Your task to perform on an android device: set the timer Image 0: 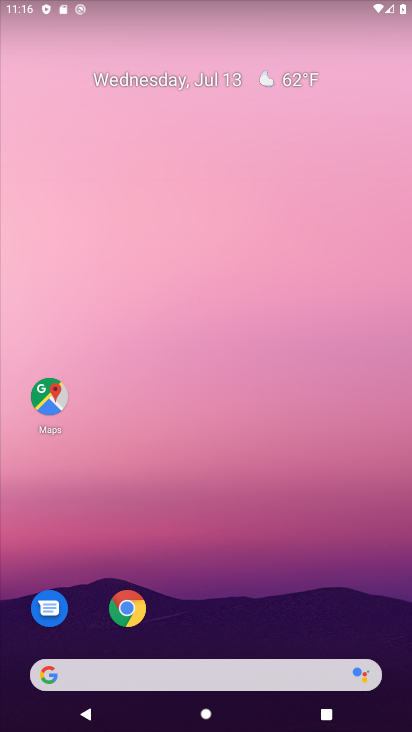
Step 0: drag from (238, 708) to (240, 214)
Your task to perform on an android device: set the timer Image 1: 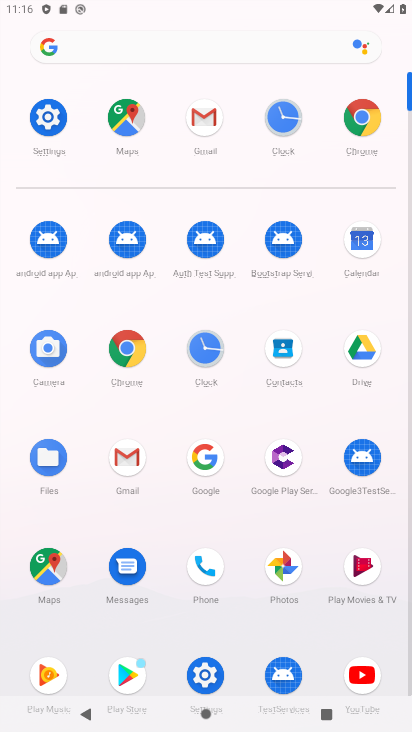
Step 1: click (202, 353)
Your task to perform on an android device: set the timer Image 2: 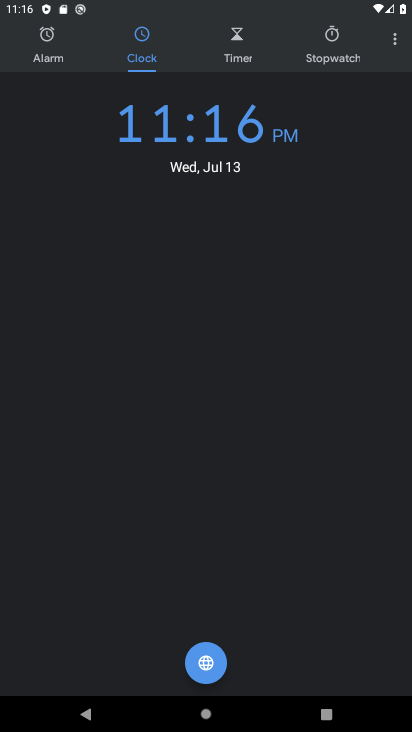
Step 2: click (394, 46)
Your task to perform on an android device: set the timer Image 3: 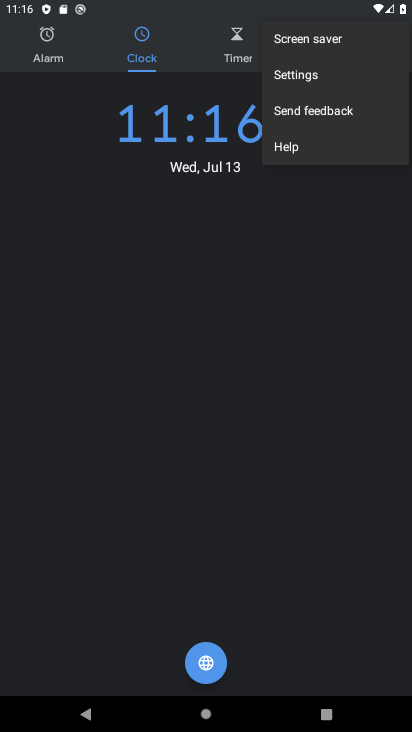
Step 3: click (296, 76)
Your task to perform on an android device: set the timer Image 4: 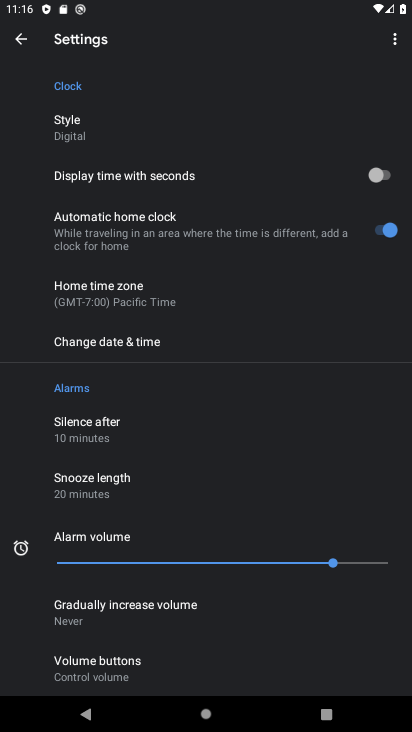
Step 4: drag from (142, 517) to (142, 276)
Your task to perform on an android device: set the timer Image 5: 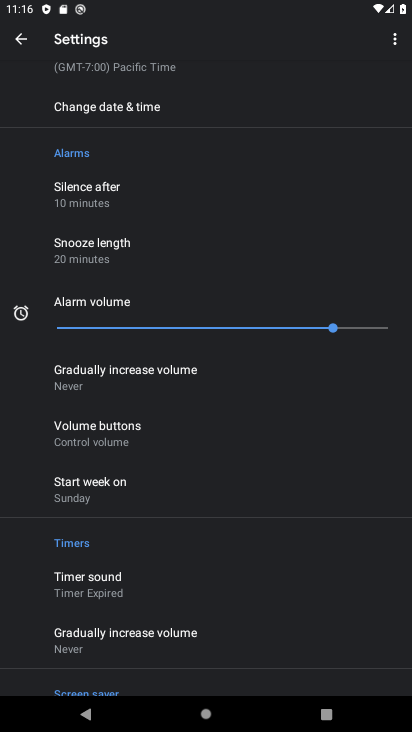
Step 5: click (95, 585)
Your task to perform on an android device: set the timer Image 6: 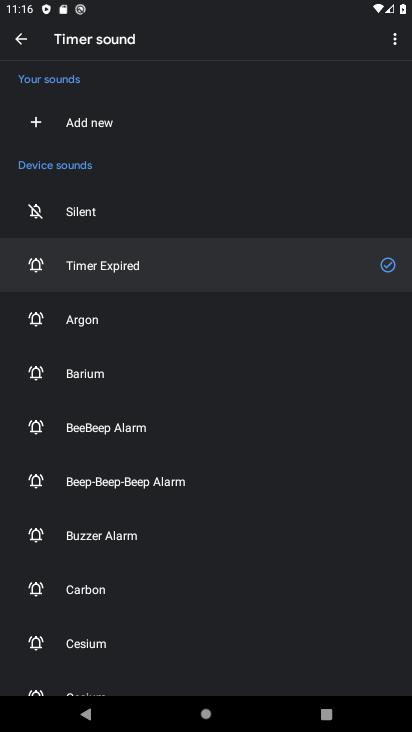
Step 6: click (40, 585)
Your task to perform on an android device: set the timer Image 7: 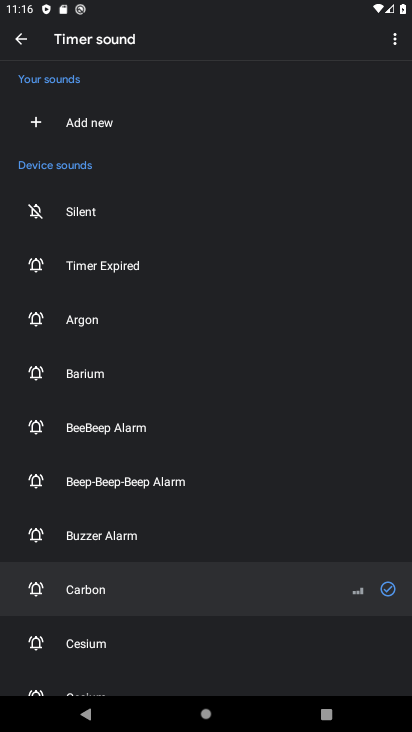
Step 7: task complete